Your task to perform on an android device: Search for Mexican restaurants on Maps Image 0: 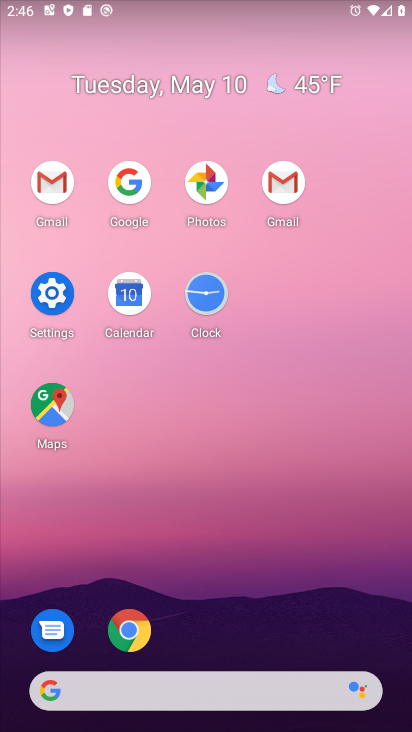
Step 0: click (56, 403)
Your task to perform on an android device: Search for Mexican restaurants on Maps Image 1: 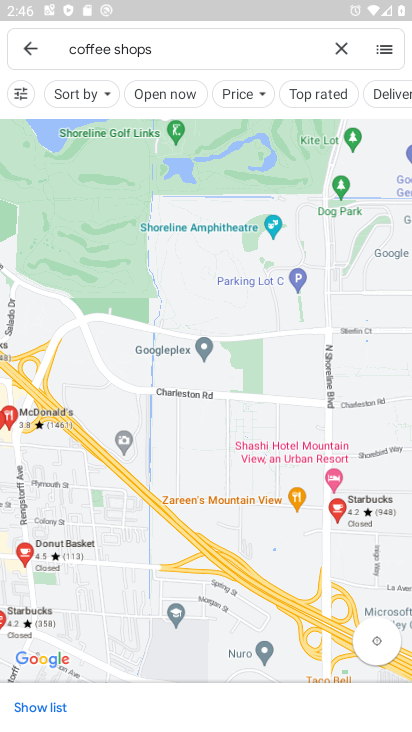
Step 1: click (348, 52)
Your task to perform on an android device: Search for Mexican restaurants on Maps Image 2: 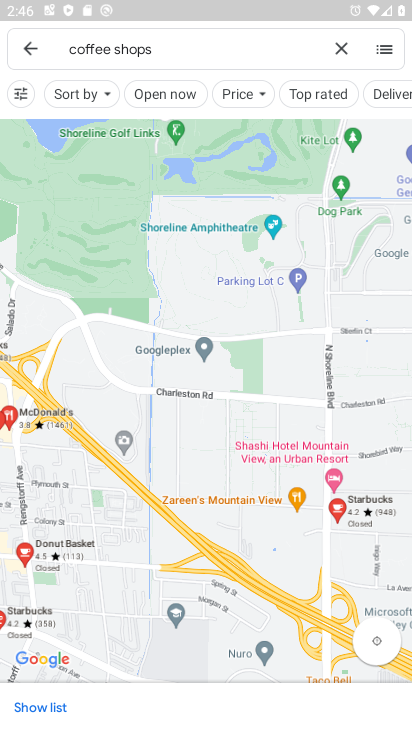
Step 2: click (334, 44)
Your task to perform on an android device: Search for Mexican restaurants on Maps Image 3: 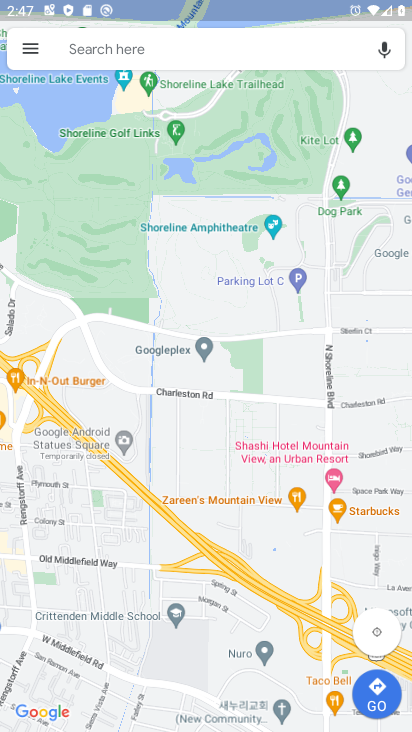
Step 3: click (217, 51)
Your task to perform on an android device: Search for Mexican restaurants on Maps Image 4: 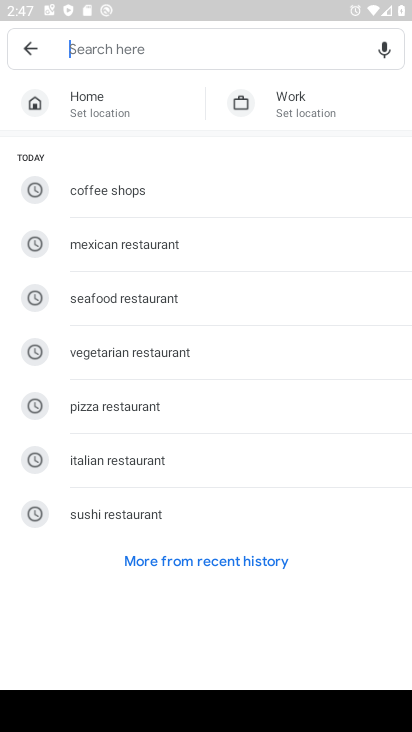
Step 4: click (178, 234)
Your task to perform on an android device: Search for Mexican restaurants on Maps Image 5: 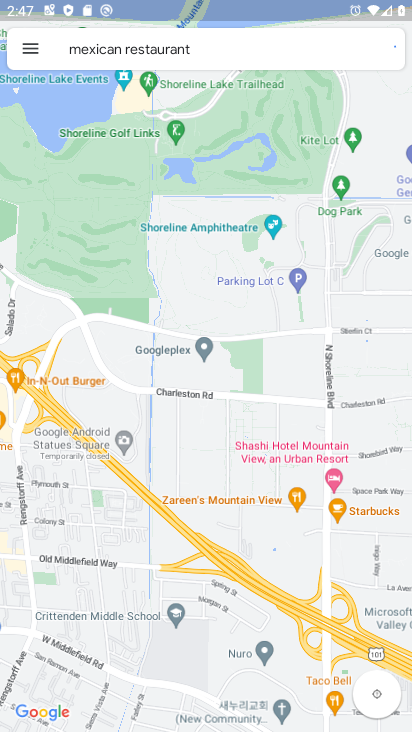
Step 5: task complete